Your task to perform on an android device: change notification settings in the gmail app Image 0: 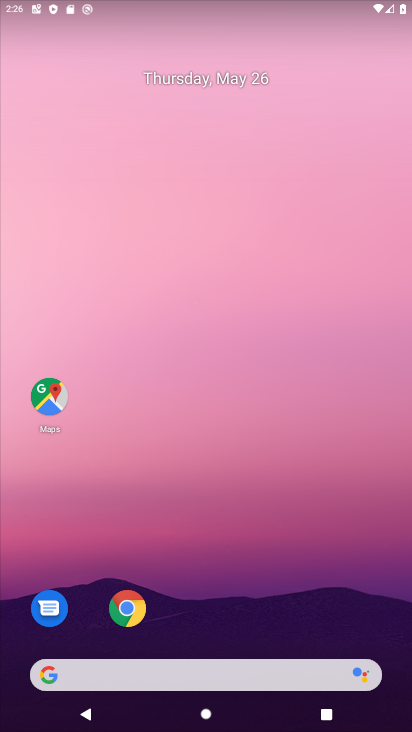
Step 0: drag from (269, 548) to (273, 49)
Your task to perform on an android device: change notification settings in the gmail app Image 1: 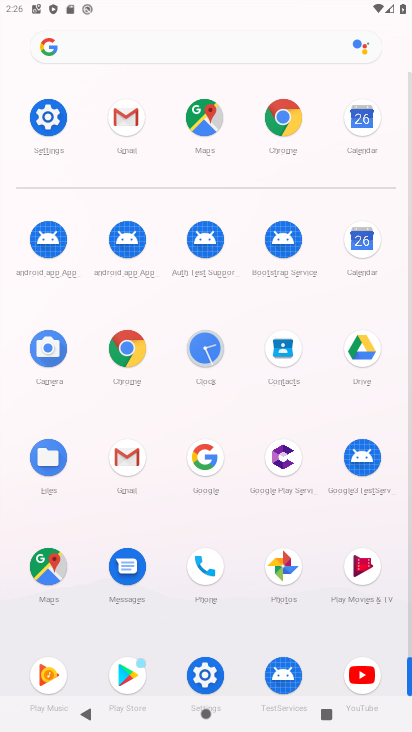
Step 1: click (109, 118)
Your task to perform on an android device: change notification settings in the gmail app Image 2: 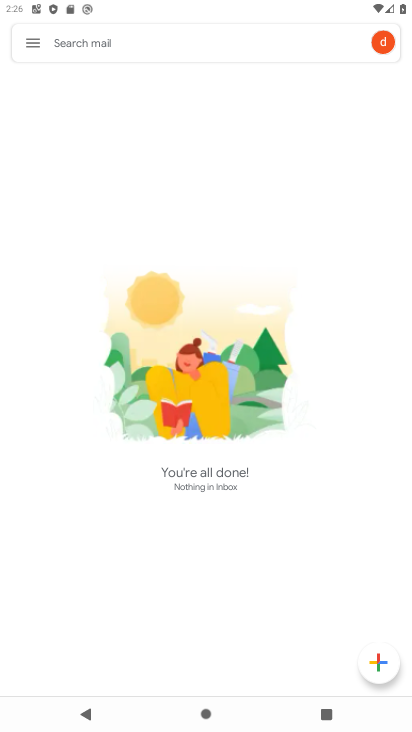
Step 2: click (33, 45)
Your task to perform on an android device: change notification settings in the gmail app Image 3: 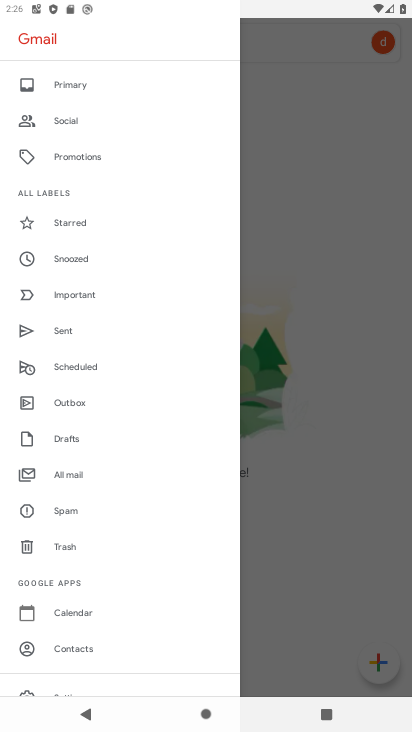
Step 3: drag from (94, 548) to (140, 46)
Your task to perform on an android device: change notification settings in the gmail app Image 4: 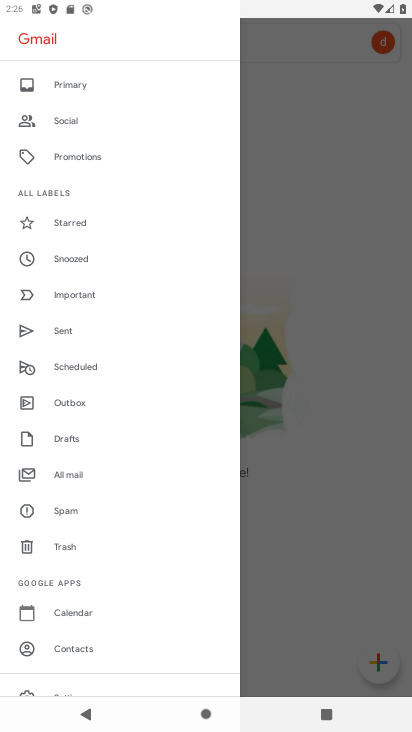
Step 4: drag from (135, 588) to (144, 189)
Your task to perform on an android device: change notification settings in the gmail app Image 5: 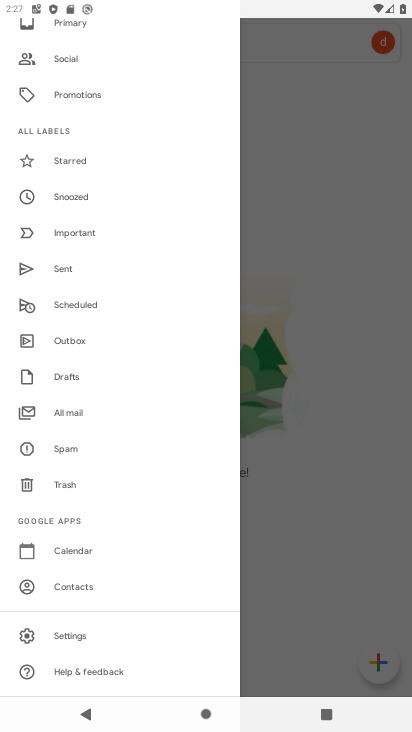
Step 5: click (67, 631)
Your task to perform on an android device: change notification settings in the gmail app Image 6: 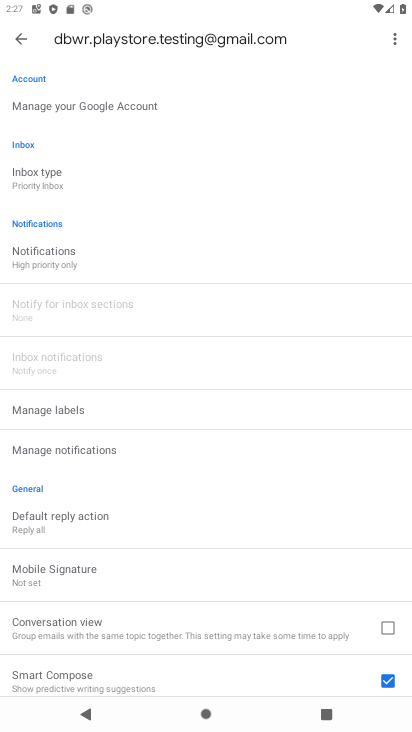
Step 6: click (37, 264)
Your task to perform on an android device: change notification settings in the gmail app Image 7: 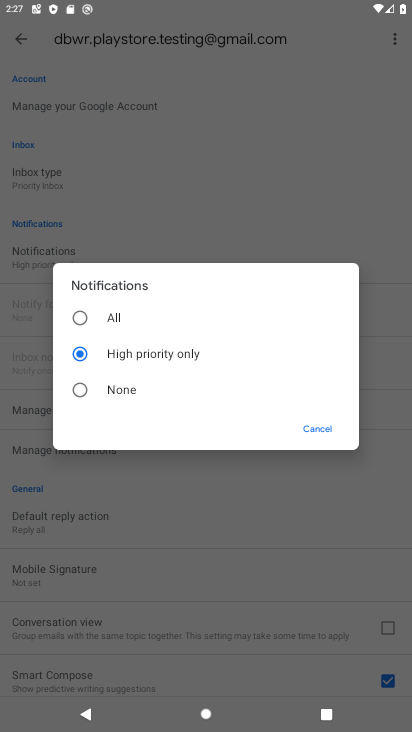
Step 7: click (88, 388)
Your task to perform on an android device: change notification settings in the gmail app Image 8: 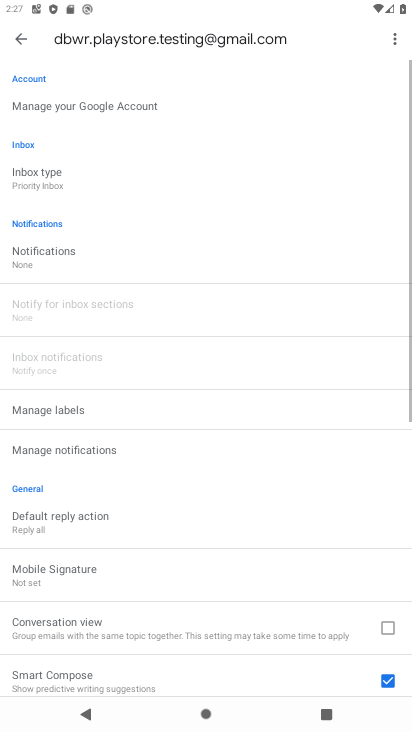
Step 8: task complete